Your task to perform on an android device: Open internet settings Image 0: 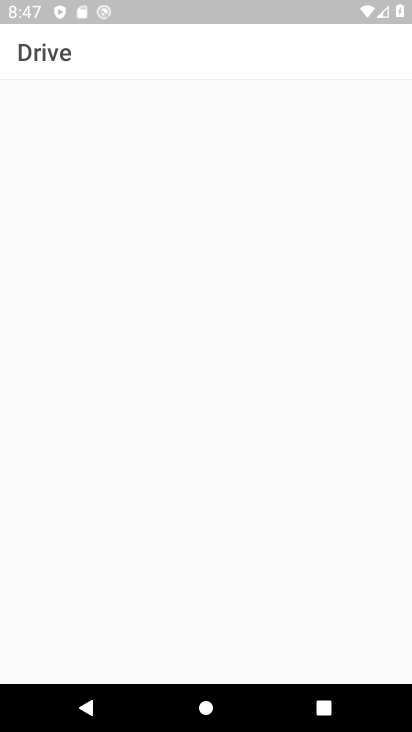
Step 0: press home button
Your task to perform on an android device: Open internet settings Image 1: 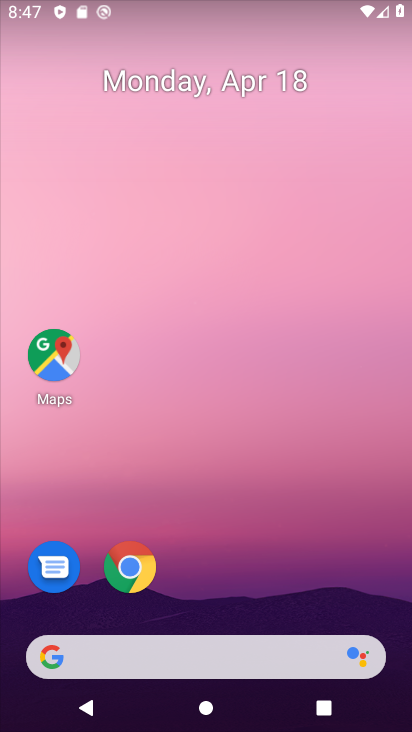
Step 1: drag from (166, 487) to (214, 19)
Your task to perform on an android device: Open internet settings Image 2: 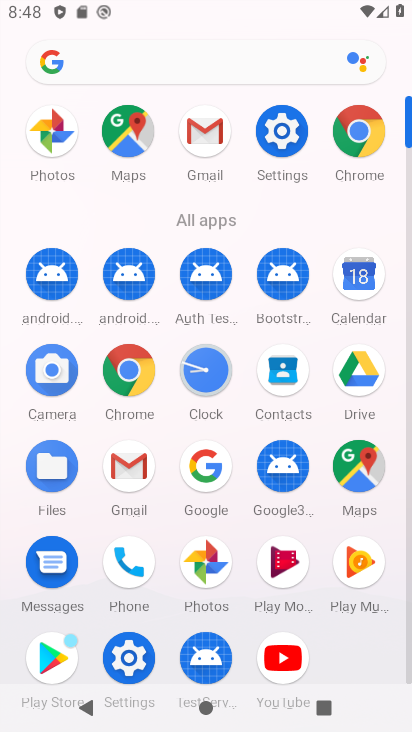
Step 2: click (281, 149)
Your task to perform on an android device: Open internet settings Image 3: 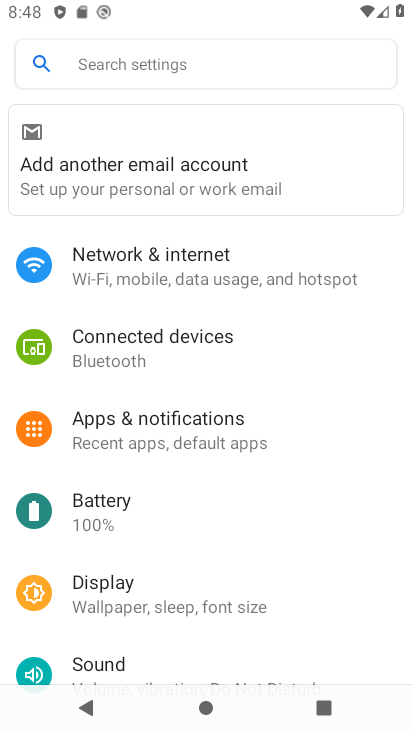
Step 3: click (184, 258)
Your task to perform on an android device: Open internet settings Image 4: 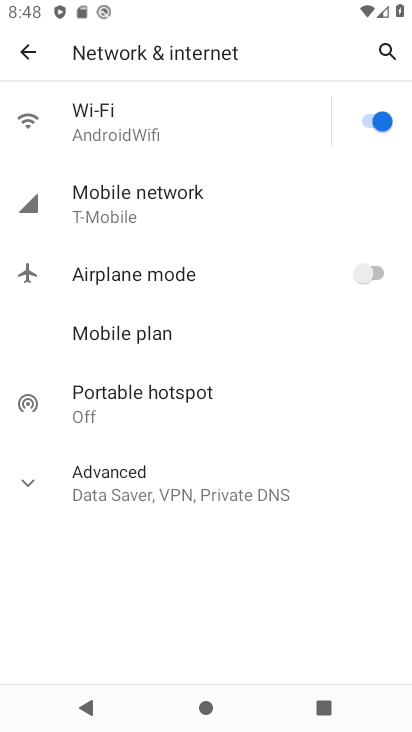
Step 4: task complete